Your task to perform on an android device: stop showing notifications on the lock screen Image 0: 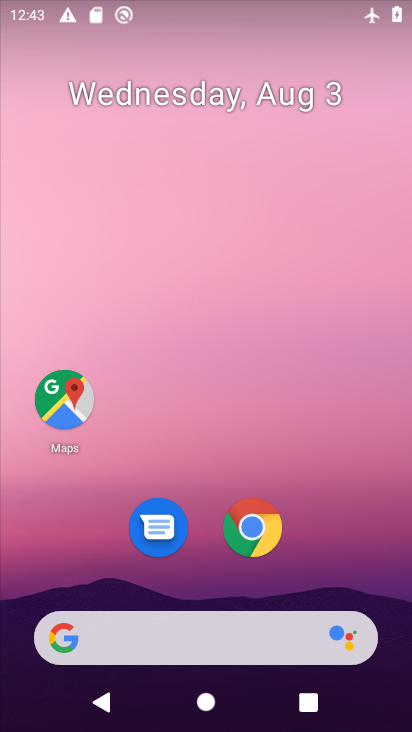
Step 0: drag from (84, 604) to (262, 62)
Your task to perform on an android device: stop showing notifications on the lock screen Image 1: 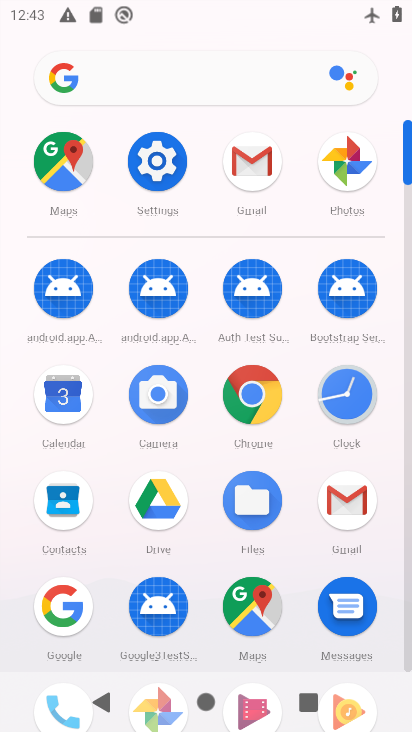
Step 1: drag from (231, 517) to (260, 103)
Your task to perform on an android device: stop showing notifications on the lock screen Image 2: 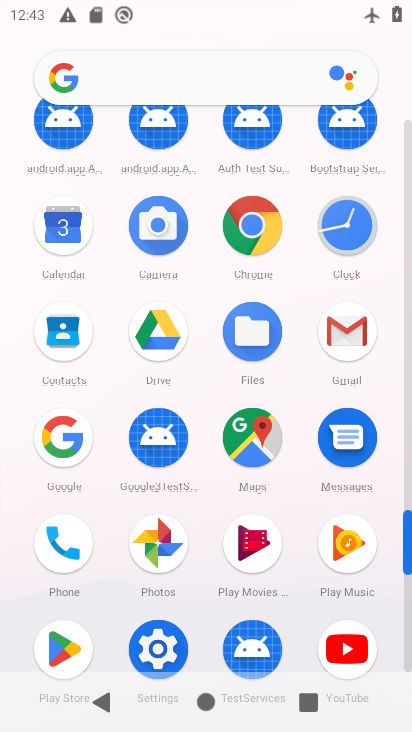
Step 2: click (143, 644)
Your task to perform on an android device: stop showing notifications on the lock screen Image 3: 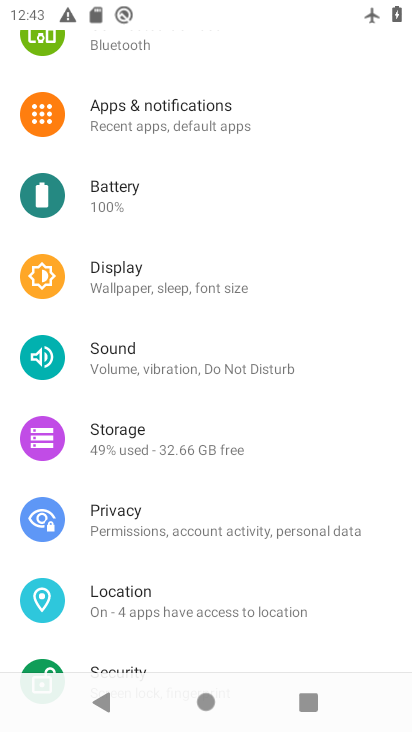
Step 3: drag from (149, 615) to (154, 395)
Your task to perform on an android device: stop showing notifications on the lock screen Image 4: 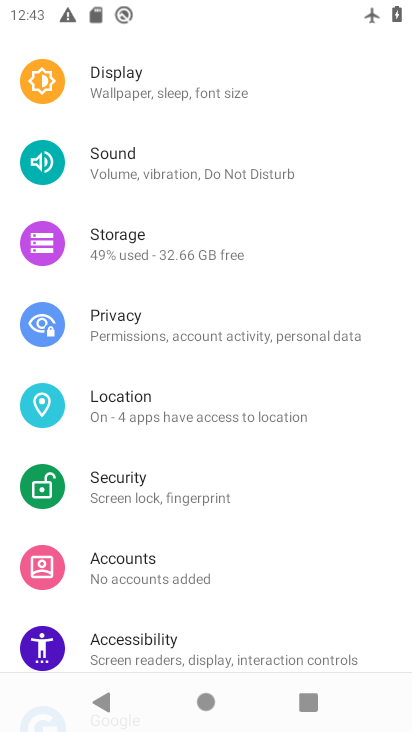
Step 4: drag from (168, 583) to (271, 75)
Your task to perform on an android device: stop showing notifications on the lock screen Image 5: 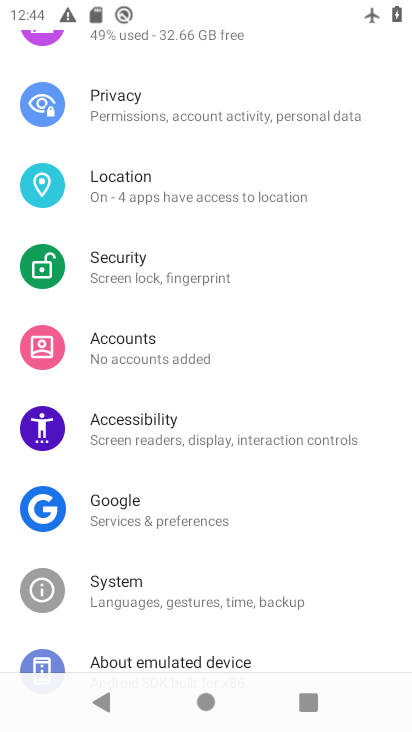
Step 5: drag from (222, 283) to (219, 590)
Your task to perform on an android device: stop showing notifications on the lock screen Image 6: 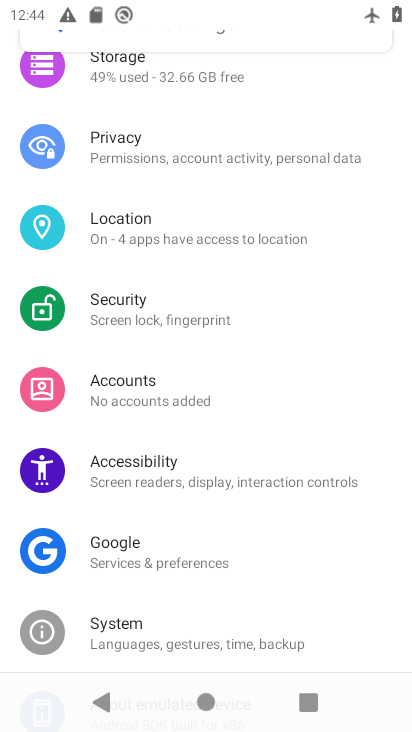
Step 6: drag from (328, 107) to (291, 10)
Your task to perform on an android device: stop showing notifications on the lock screen Image 7: 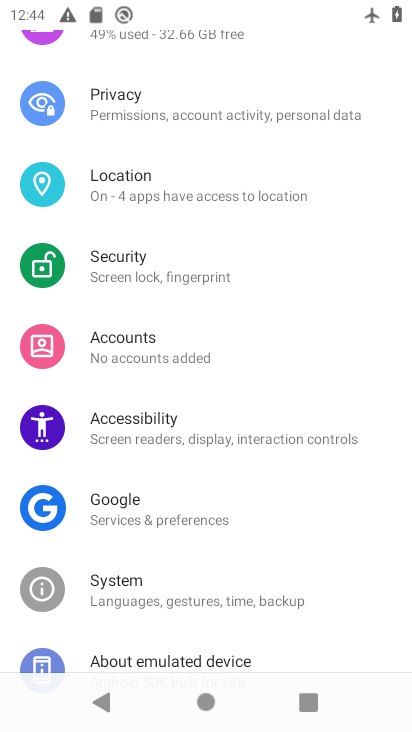
Step 7: drag from (175, 638) to (216, 235)
Your task to perform on an android device: stop showing notifications on the lock screen Image 8: 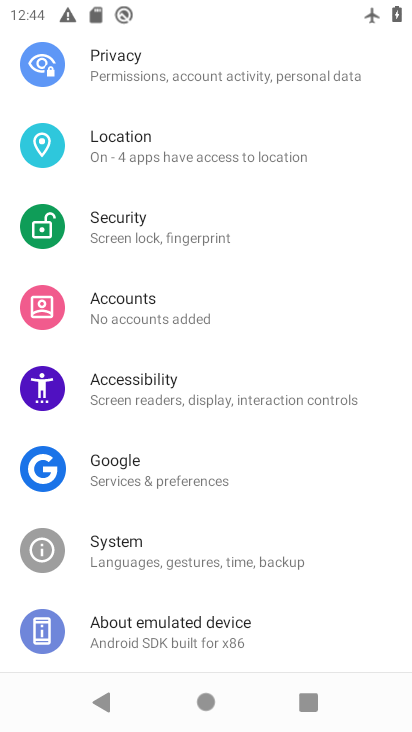
Step 8: drag from (205, 109) to (166, 714)
Your task to perform on an android device: stop showing notifications on the lock screen Image 9: 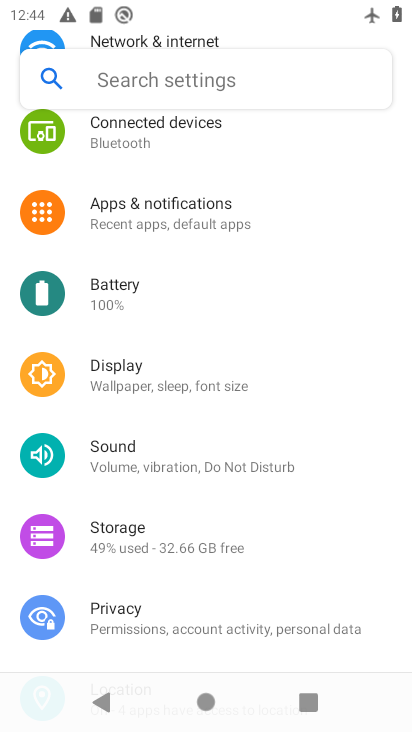
Step 9: click (199, 213)
Your task to perform on an android device: stop showing notifications on the lock screen Image 10: 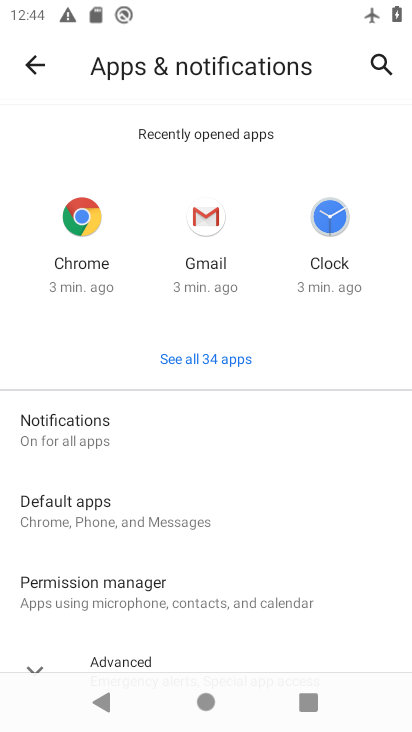
Step 10: drag from (156, 518) to (164, 283)
Your task to perform on an android device: stop showing notifications on the lock screen Image 11: 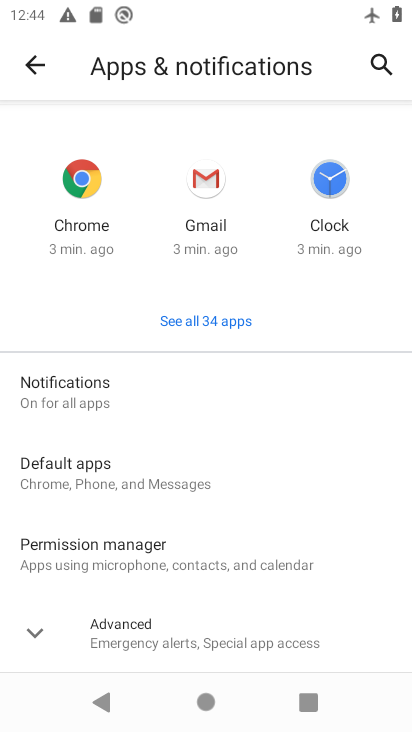
Step 11: click (131, 627)
Your task to perform on an android device: stop showing notifications on the lock screen Image 12: 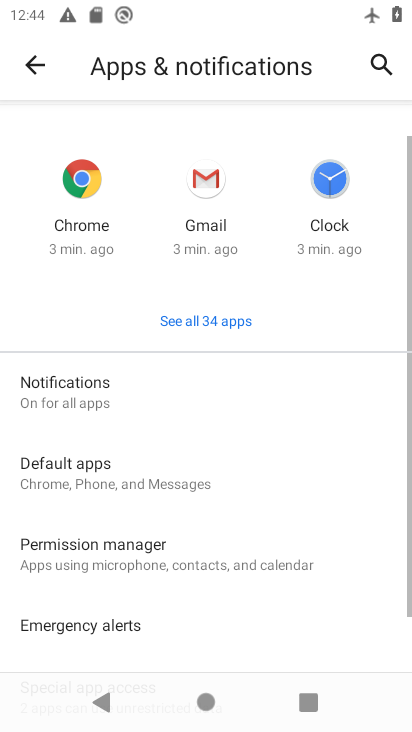
Step 12: drag from (292, 588) to (302, 225)
Your task to perform on an android device: stop showing notifications on the lock screen Image 13: 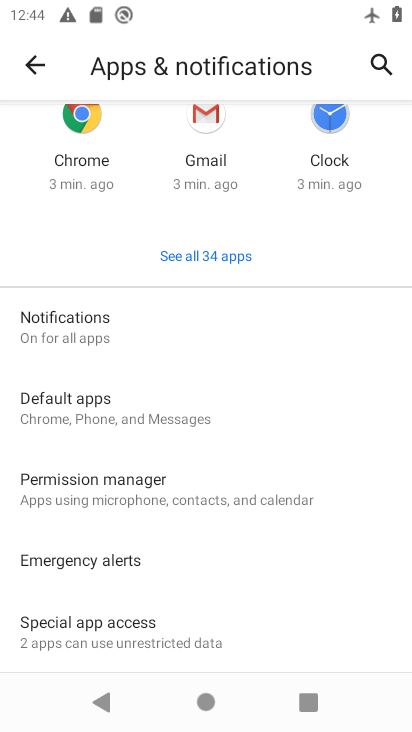
Step 13: drag from (143, 608) to (170, 415)
Your task to perform on an android device: stop showing notifications on the lock screen Image 14: 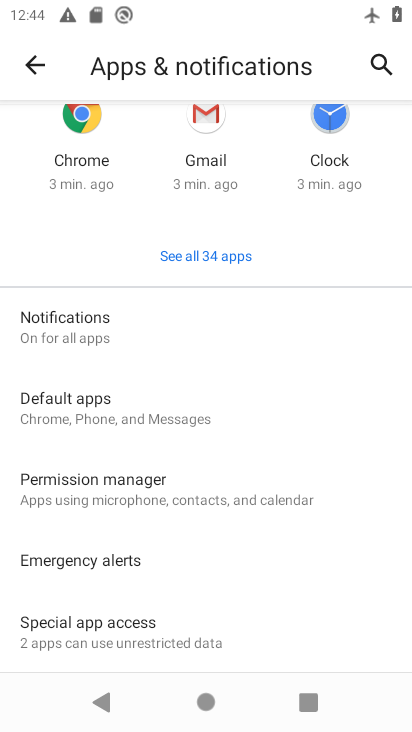
Step 14: drag from (267, 362) to (239, 631)
Your task to perform on an android device: stop showing notifications on the lock screen Image 15: 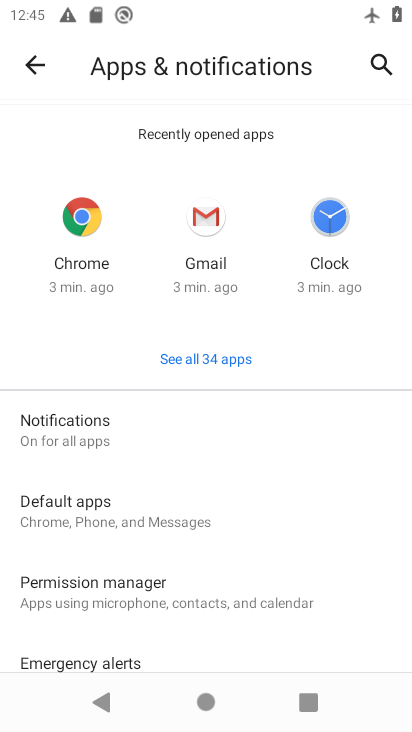
Step 15: drag from (155, 532) to (203, 176)
Your task to perform on an android device: stop showing notifications on the lock screen Image 16: 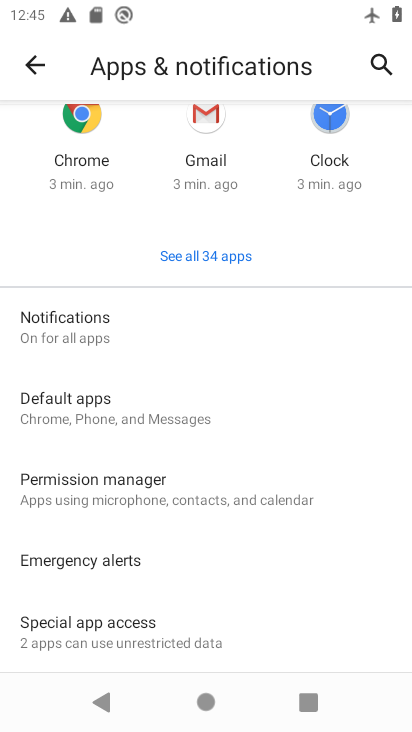
Step 16: click (125, 634)
Your task to perform on an android device: stop showing notifications on the lock screen Image 17: 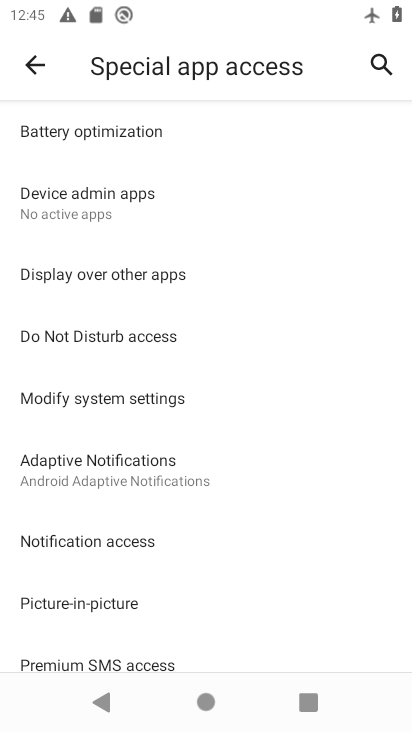
Step 17: task complete